Your task to perform on an android device: visit the assistant section in the google photos Image 0: 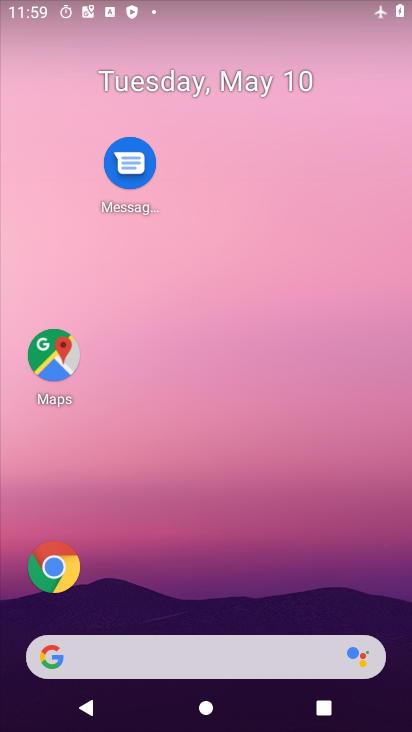
Step 0: drag from (133, 604) to (180, 96)
Your task to perform on an android device: visit the assistant section in the google photos Image 1: 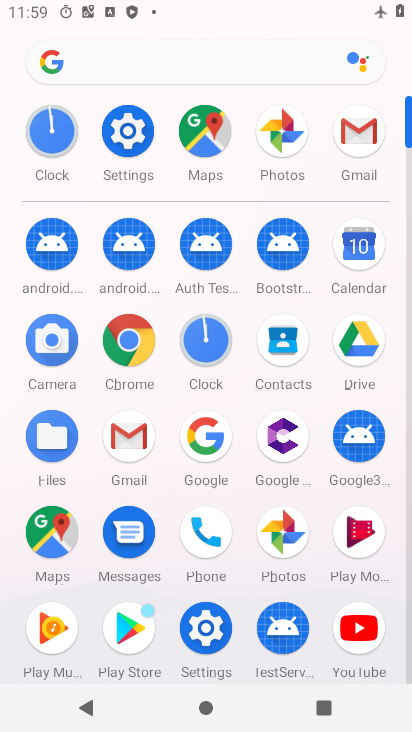
Step 1: click (293, 558)
Your task to perform on an android device: visit the assistant section in the google photos Image 2: 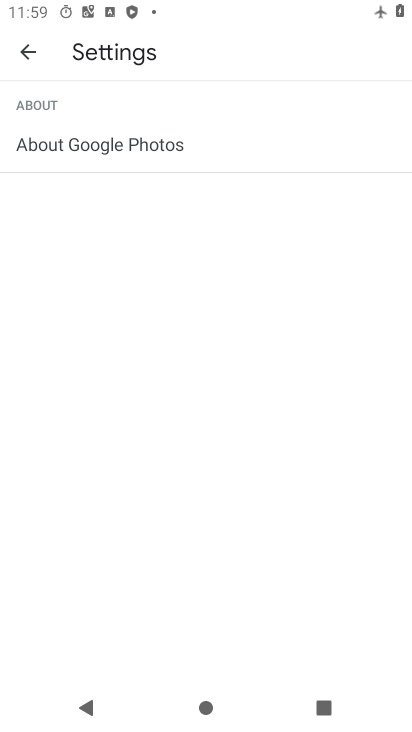
Step 2: press back button
Your task to perform on an android device: visit the assistant section in the google photos Image 3: 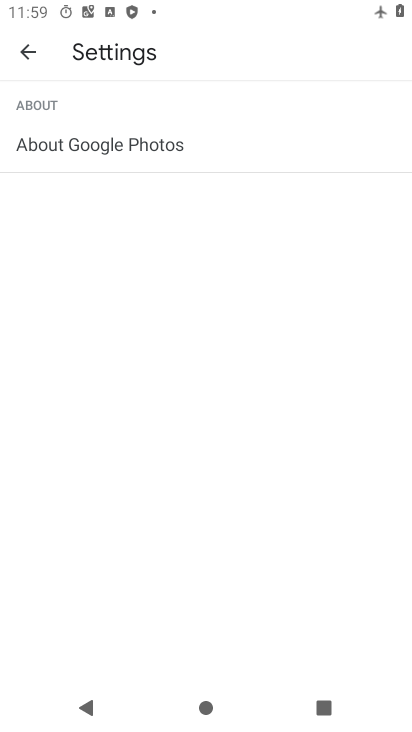
Step 3: press back button
Your task to perform on an android device: visit the assistant section in the google photos Image 4: 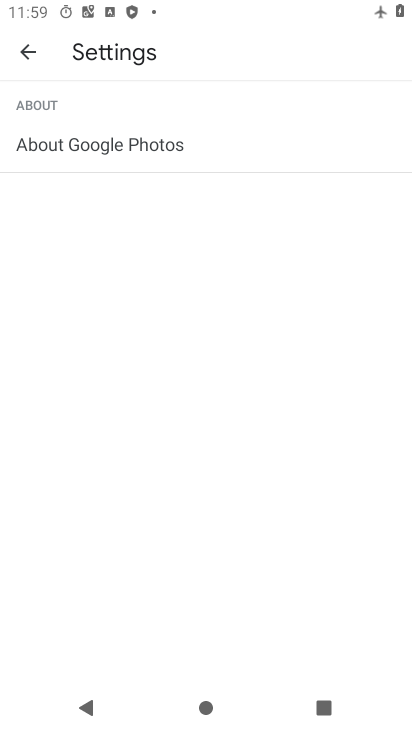
Step 4: click (29, 61)
Your task to perform on an android device: visit the assistant section in the google photos Image 5: 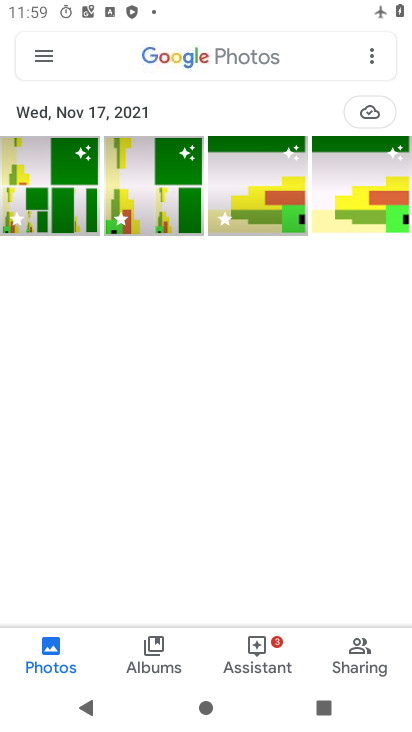
Step 5: click (50, 67)
Your task to perform on an android device: visit the assistant section in the google photos Image 6: 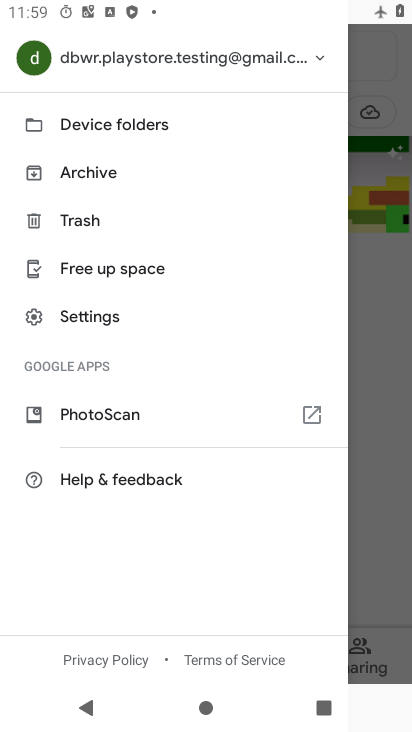
Step 6: click (98, 314)
Your task to perform on an android device: visit the assistant section in the google photos Image 7: 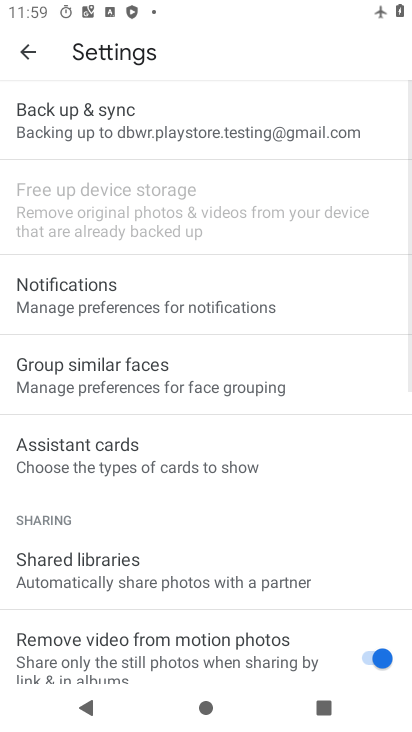
Step 7: click (95, 446)
Your task to perform on an android device: visit the assistant section in the google photos Image 8: 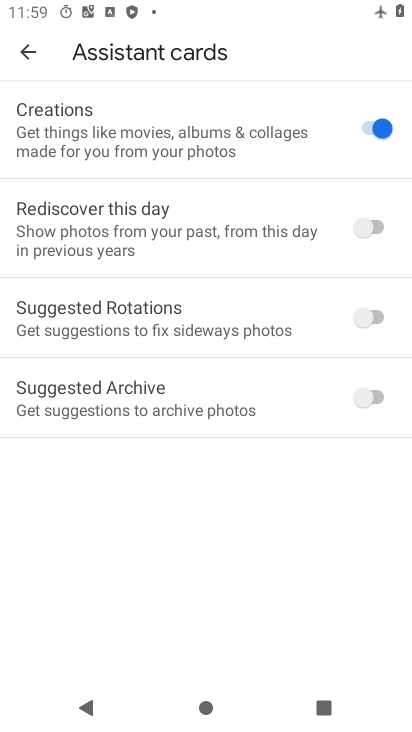
Step 8: task complete